Your task to perform on an android device: Is it going to rain tomorrow? Image 0: 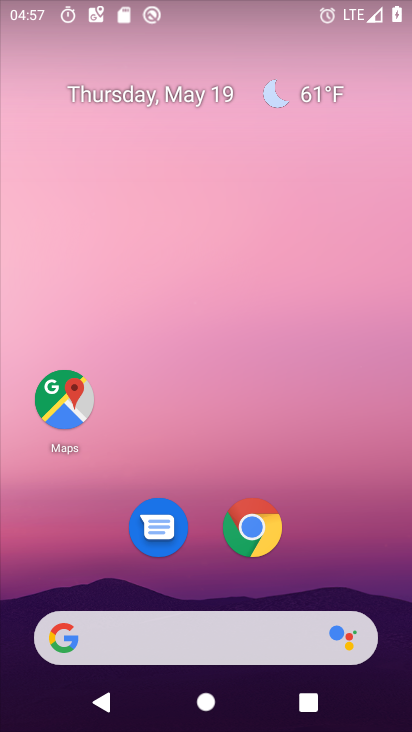
Step 0: click (296, 95)
Your task to perform on an android device: Is it going to rain tomorrow? Image 1: 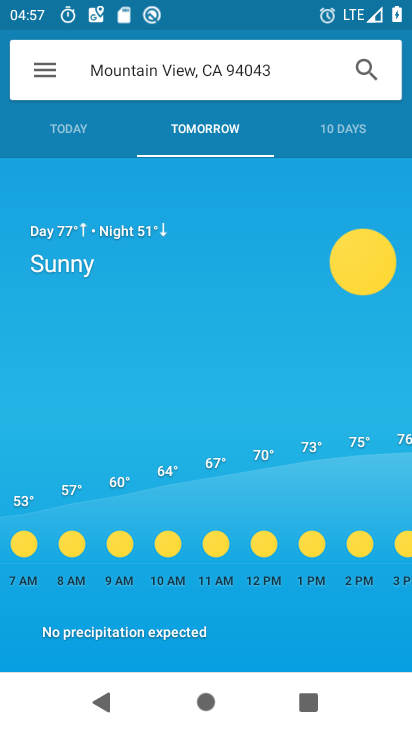
Step 1: task complete